Your task to perform on an android device: check data usage Image 0: 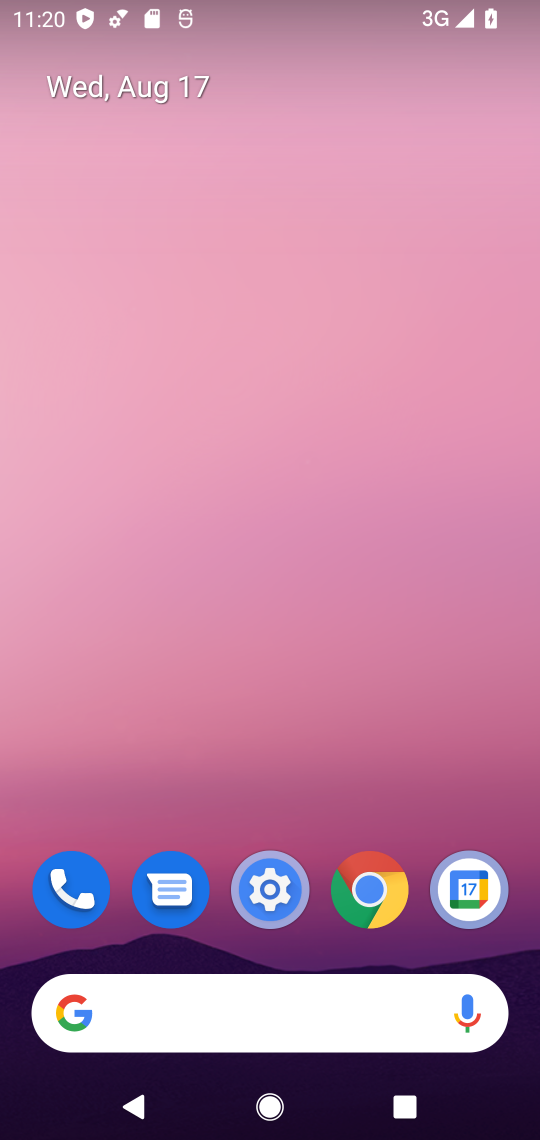
Step 0: click (272, 880)
Your task to perform on an android device: check data usage Image 1: 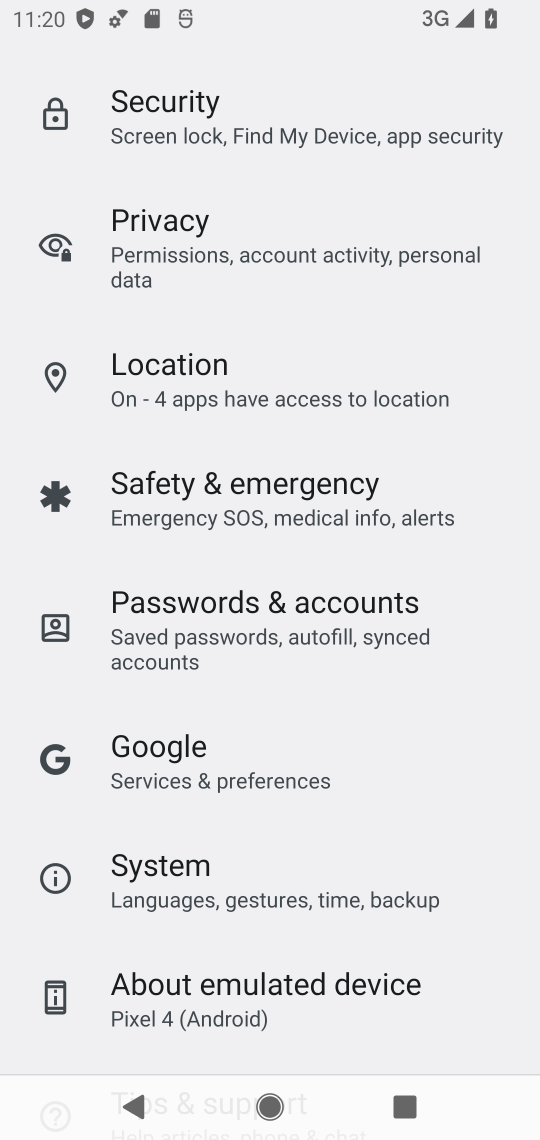
Step 1: drag from (329, 335) to (326, 939)
Your task to perform on an android device: check data usage Image 2: 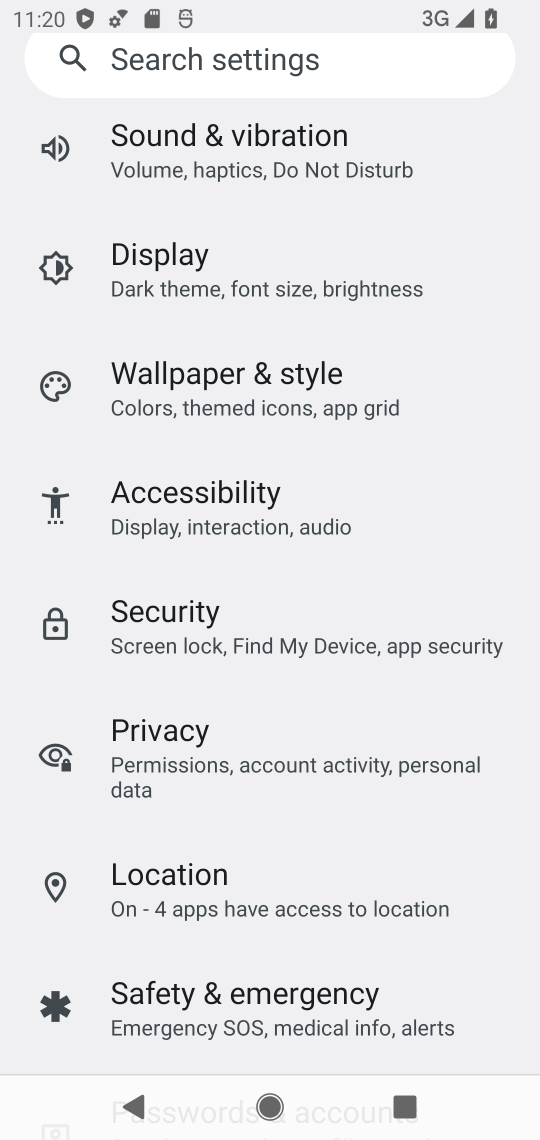
Step 2: drag from (277, 252) to (281, 970)
Your task to perform on an android device: check data usage Image 3: 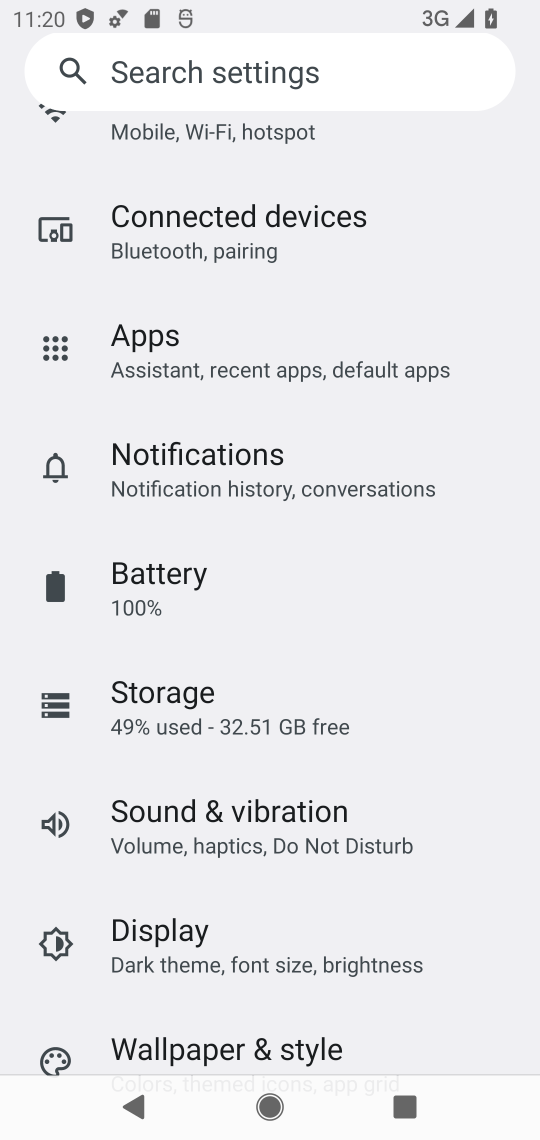
Step 3: drag from (295, 332) to (280, 949)
Your task to perform on an android device: check data usage Image 4: 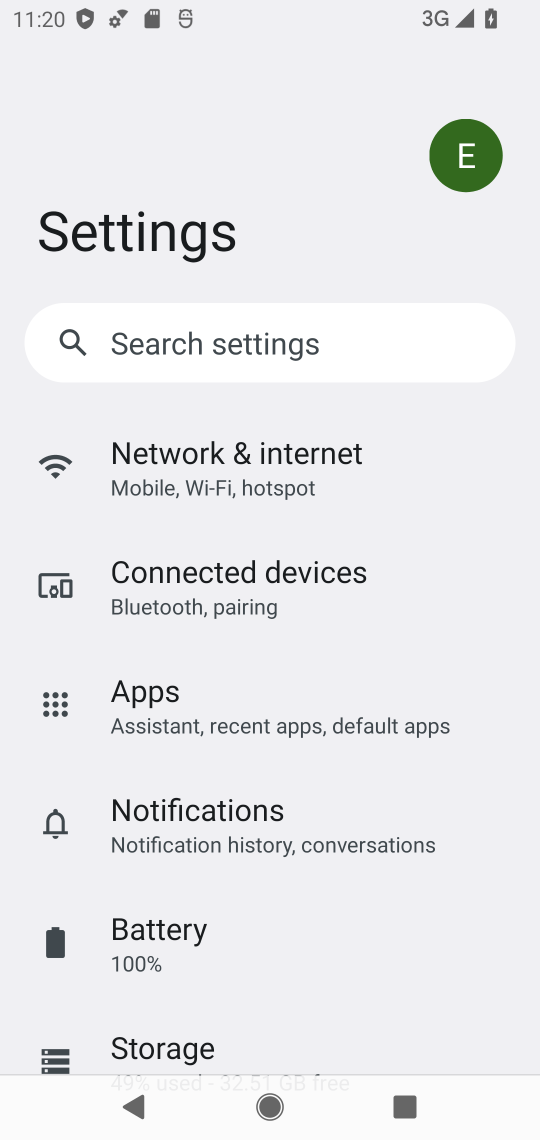
Step 4: click (297, 477)
Your task to perform on an android device: check data usage Image 5: 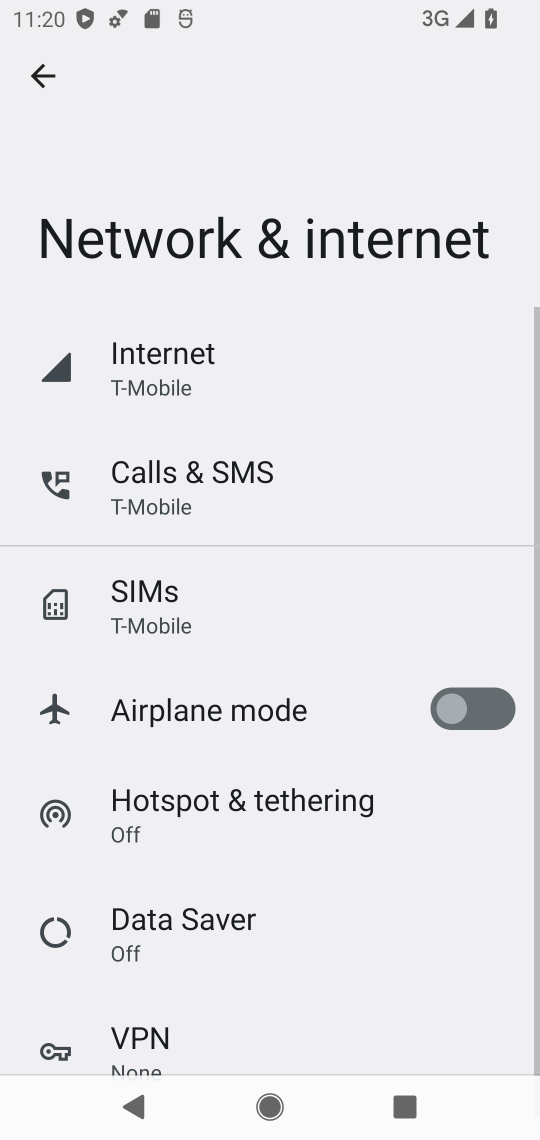
Step 5: click (159, 600)
Your task to perform on an android device: check data usage Image 6: 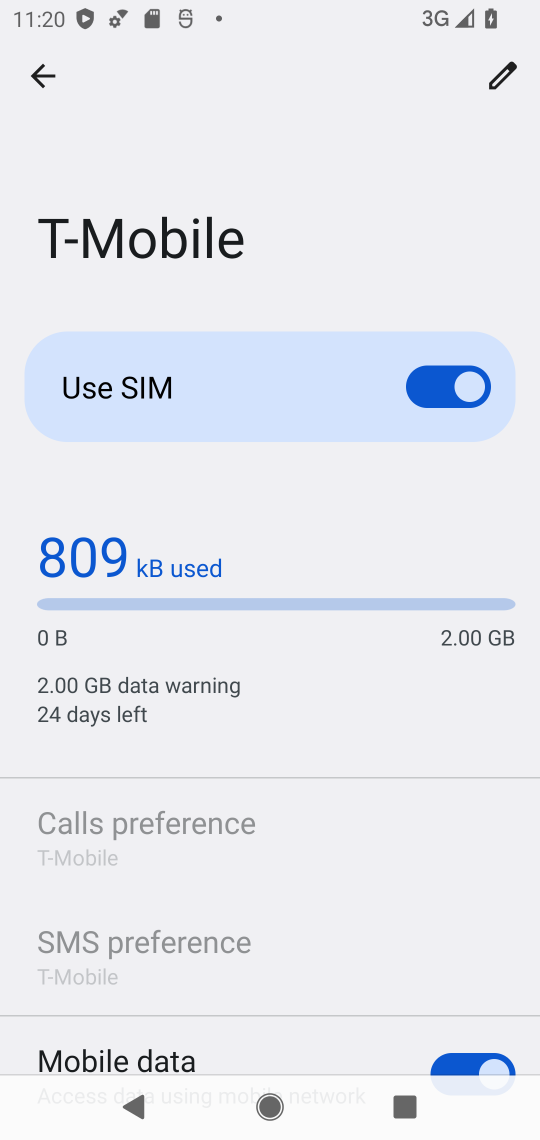
Step 6: task complete